Your task to perform on an android device: empty trash in google photos Image 0: 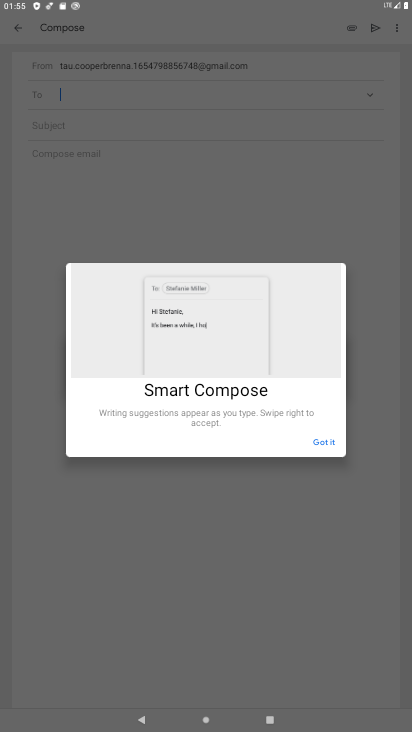
Step 0: press home button
Your task to perform on an android device: empty trash in google photos Image 1: 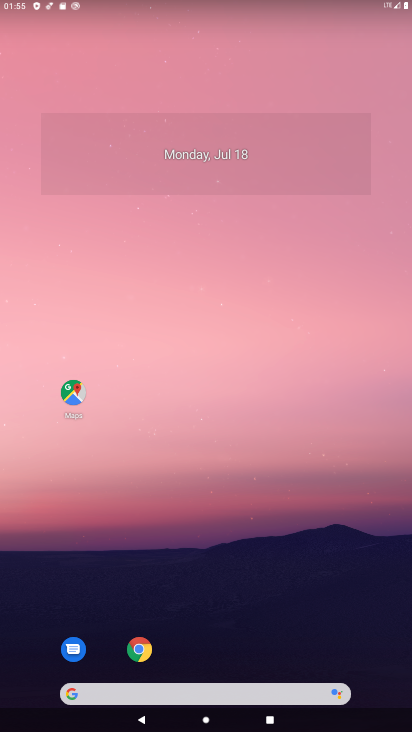
Step 1: drag from (179, 684) to (182, 125)
Your task to perform on an android device: empty trash in google photos Image 2: 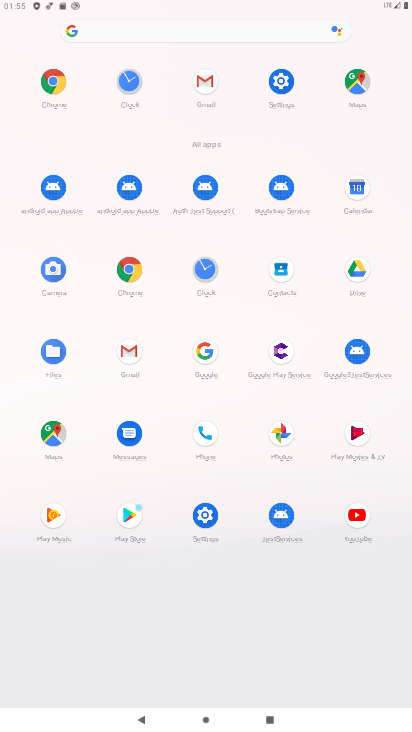
Step 2: click (285, 437)
Your task to perform on an android device: empty trash in google photos Image 3: 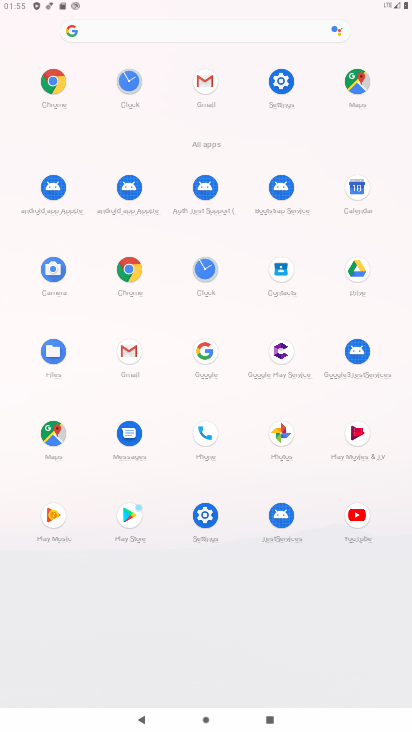
Step 3: click (285, 437)
Your task to perform on an android device: empty trash in google photos Image 4: 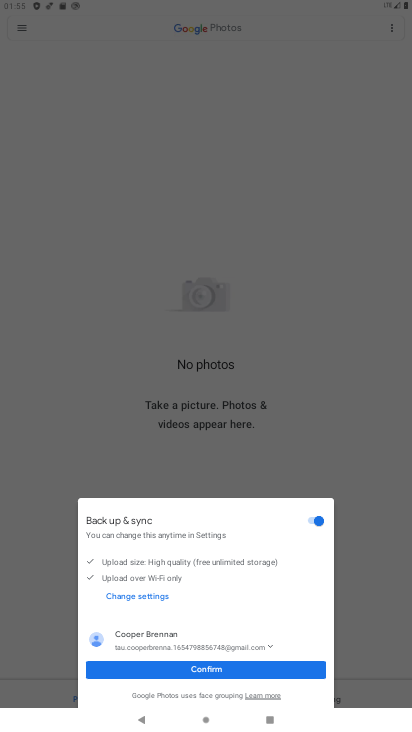
Step 4: click (115, 665)
Your task to perform on an android device: empty trash in google photos Image 5: 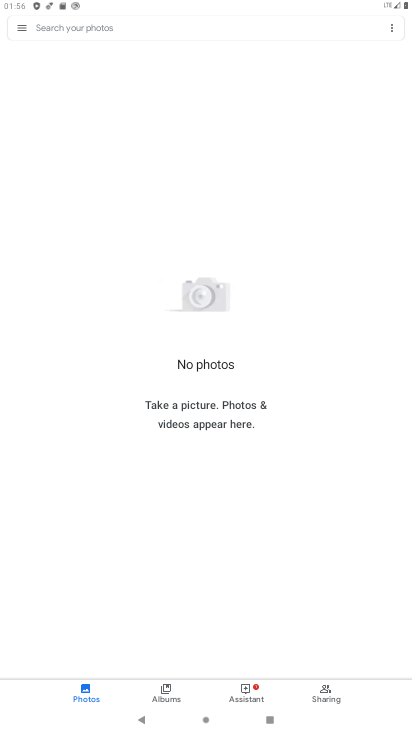
Step 5: click (19, 24)
Your task to perform on an android device: empty trash in google photos Image 6: 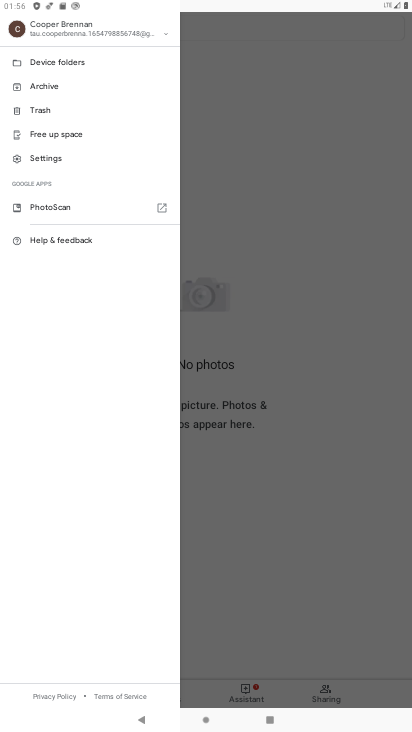
Step 6: click (38, 111)
Your task to perform on an android device: empty trash in google photos Image 7: 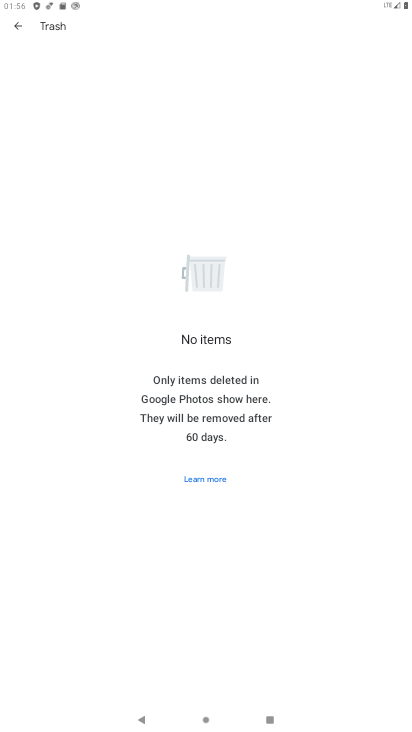
Step 7: task complete